Your task to perform on an android device: Open the contacts Image 0: 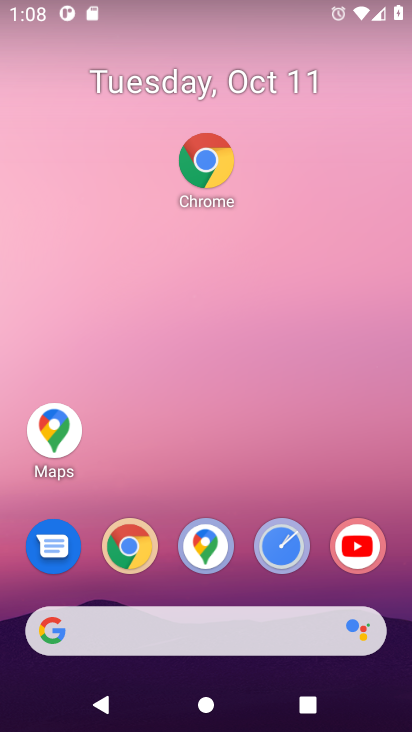
Step 0: drag from (197, 465) to (220, 97)
Your task to perform on an android device: Open the contacts Image 1: 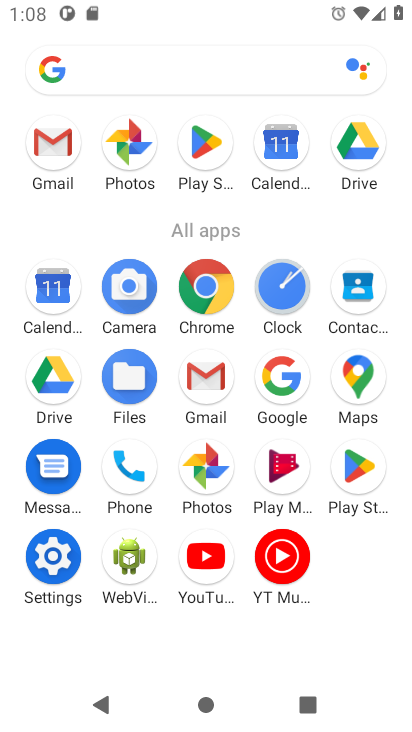
Step 1: click (363, 299)
Your task to perform on an android device: Open the contacts Image 2: 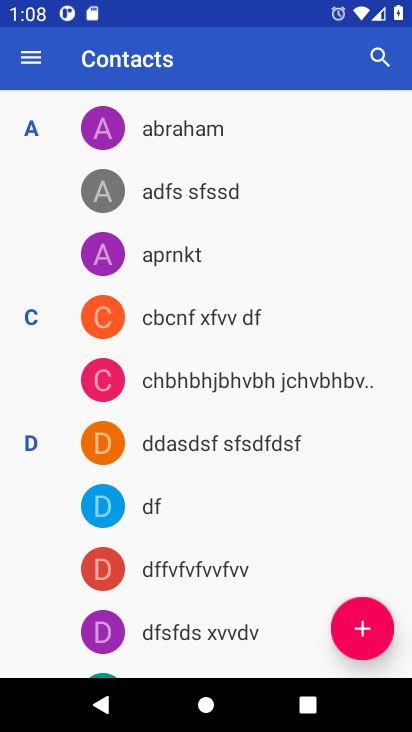
Step 2: task complete